Your task to perform on an android device: Open Maps and search for coffee Image 0: 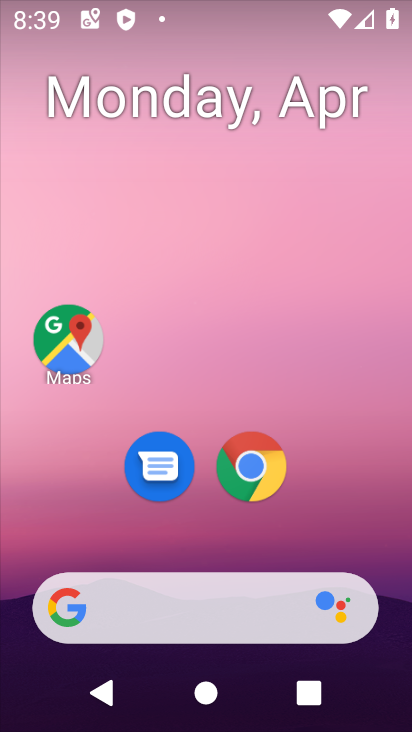
Step 0: click (69, 342)
Your task to perform on an android device: Open Maps and search for coffee Image 1: 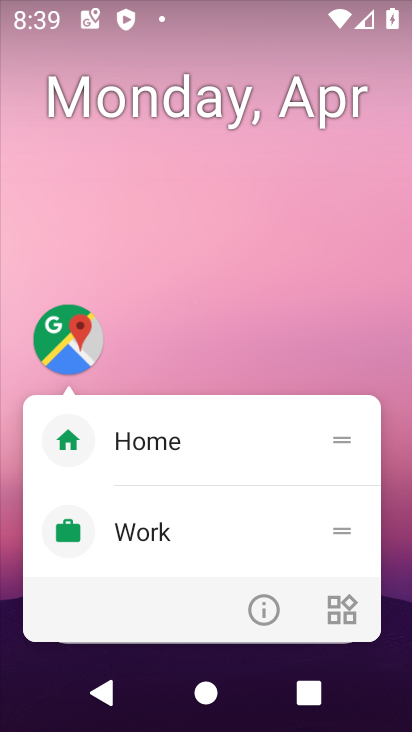
Step 1: click (69, 342)
Your task to perform on an android device: Open Maps and search for coffee Image 2: 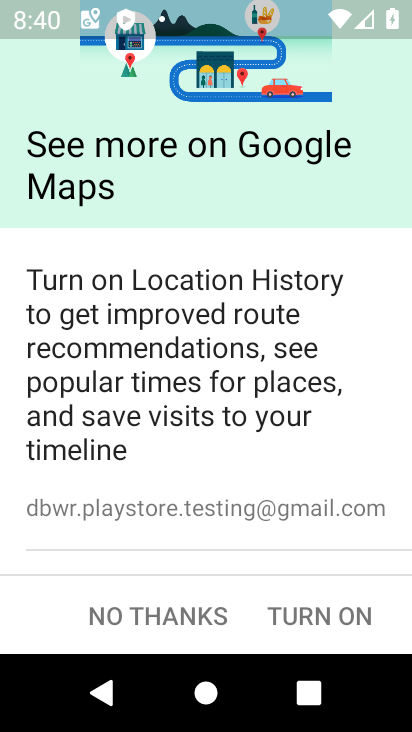
Step 2: click (193, 615)
Your task to perform on an android device: Open Maps and search for coffee Image 3: 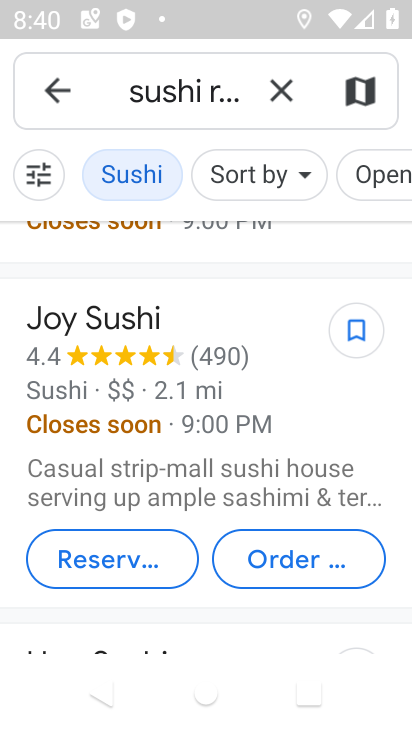
Step 3: click (278, 94)
Your task to perform on an android device: Open Maps and search for coffee Image 4: 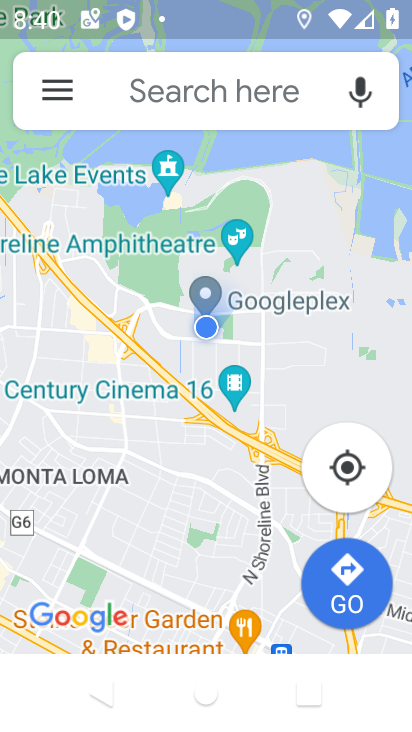
Step 4: click (235, 98)
Your task to perform on an android device: Open Maps and search for coffee Image 5: 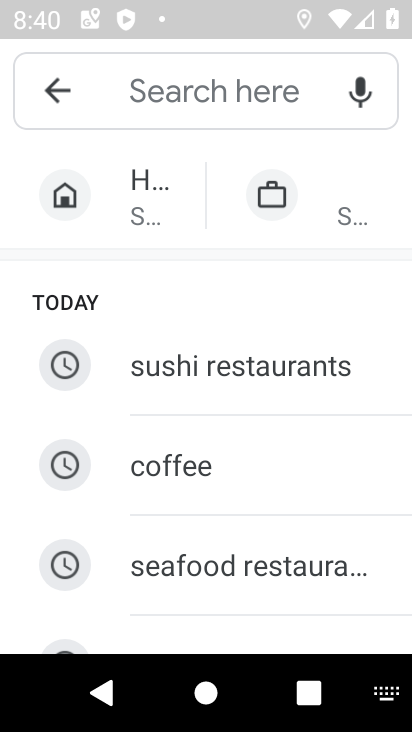
Step 5: type "coffee"
Your task to perform on an android device: Open Maps and search for coffee Image 6: 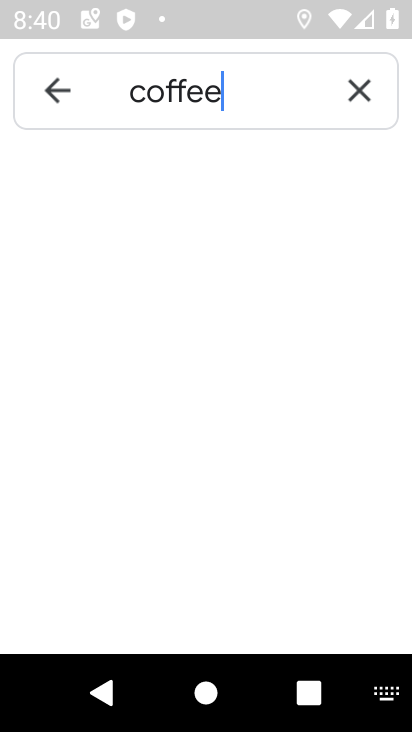
Step 6: type ""
Your task to perform on an android device: Open Maps and search for coffee Image 7: 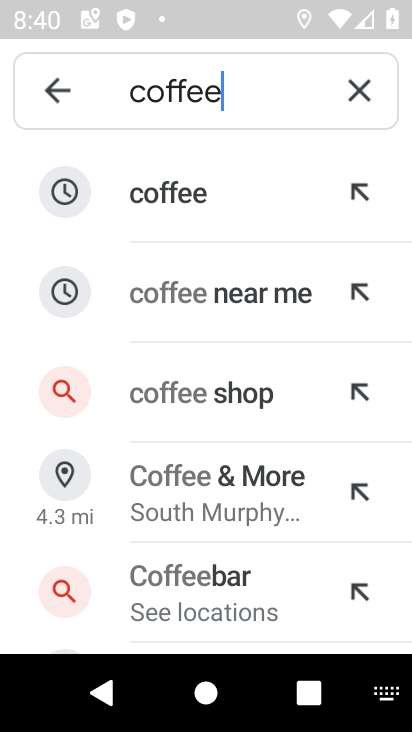
Step 7: click (163, 207)
Your task to perform on an android device: Open Maps and search for coffee Image 8: 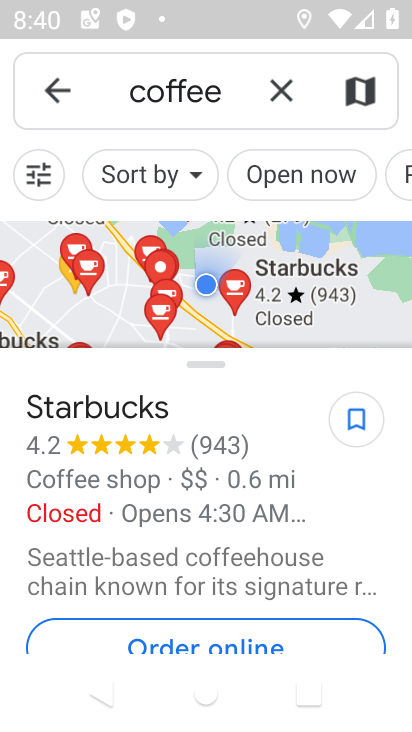
Step 8: task complete